Your task to perform on an android device: open app "Google Play Music" (install if not already installed) Image 0: 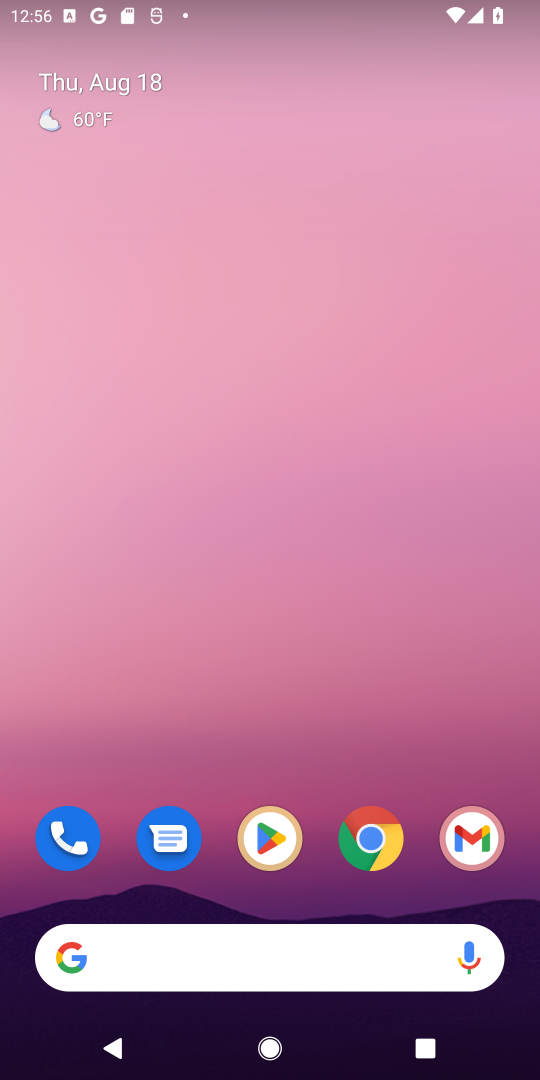
Step 0: click (283, 857)
Your task to perform on an android device: open app "Google Play Music" (install if not already installed) Image 1: 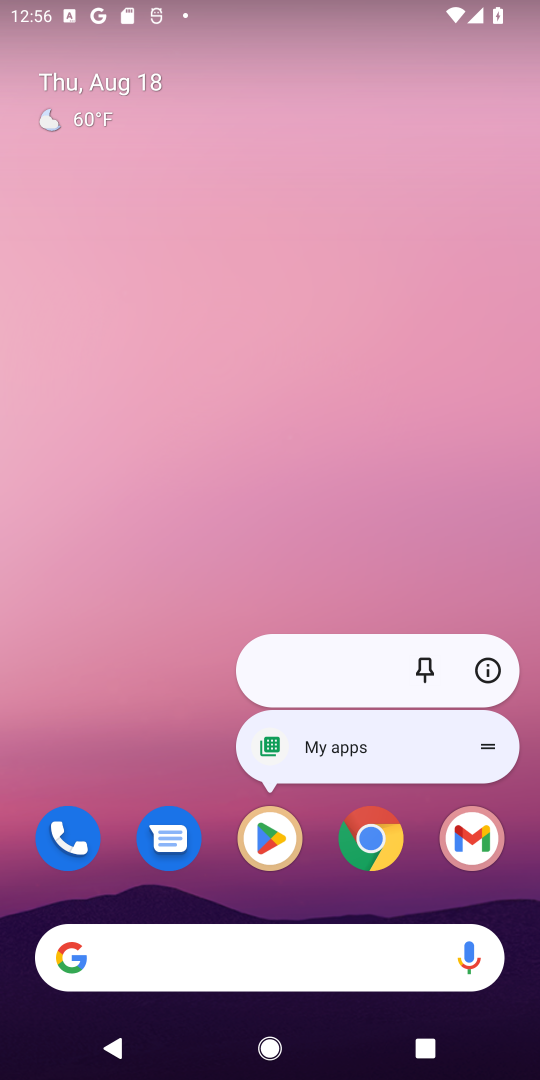
Step 1: click (271, 848)
Your task to perform on an android device: open app "Google Play Music" (install if not already installed) Image 2: 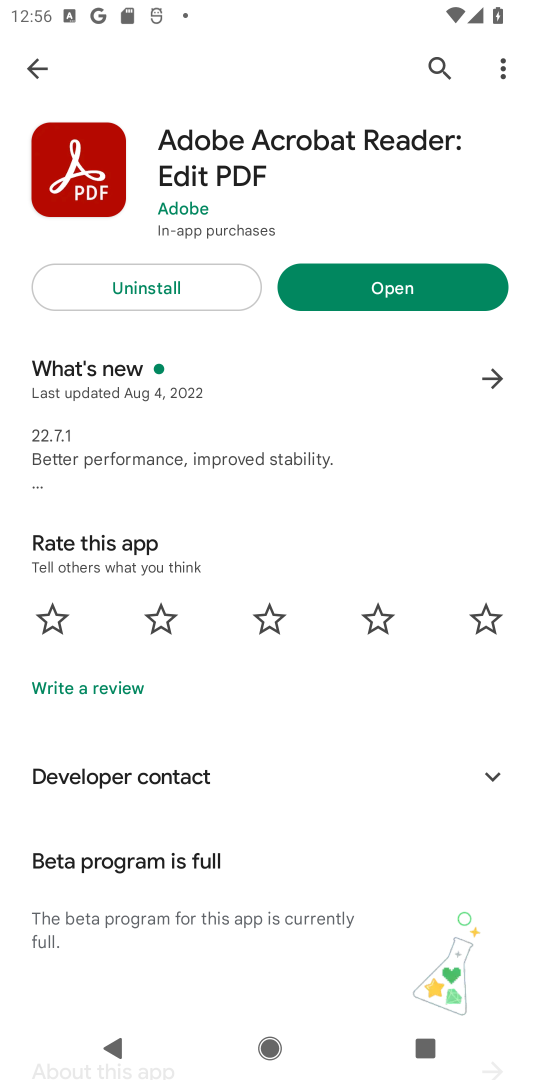
Step 2: click (442, 55)
Your task to perform on an android device: open app "Google Play Music" (install if not already installed) Image 3: 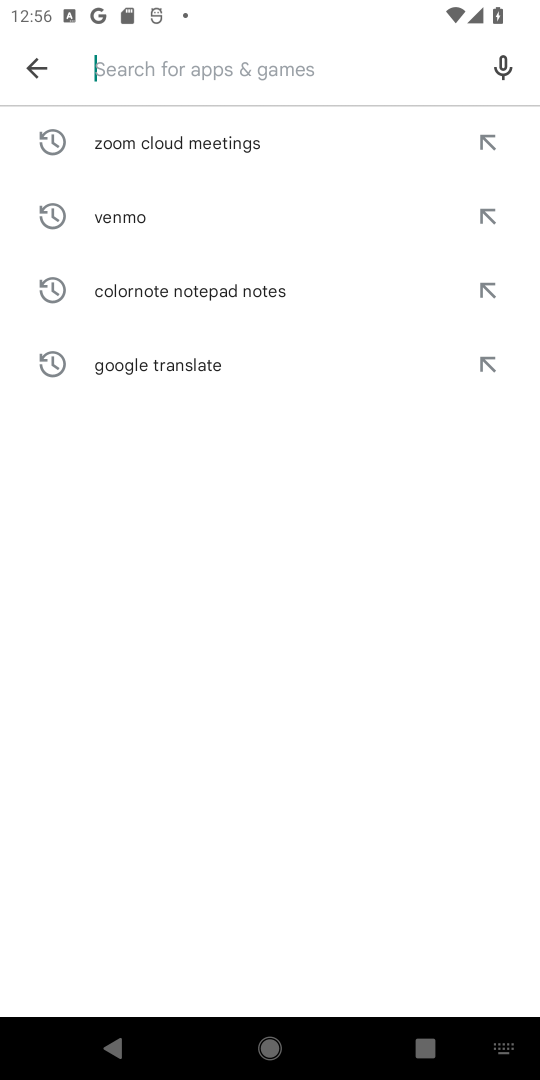
Step 3: type "Google Play Music"
Your task to perform on an android device: open app "Google Play Music" (install if not already installed) Image 4: 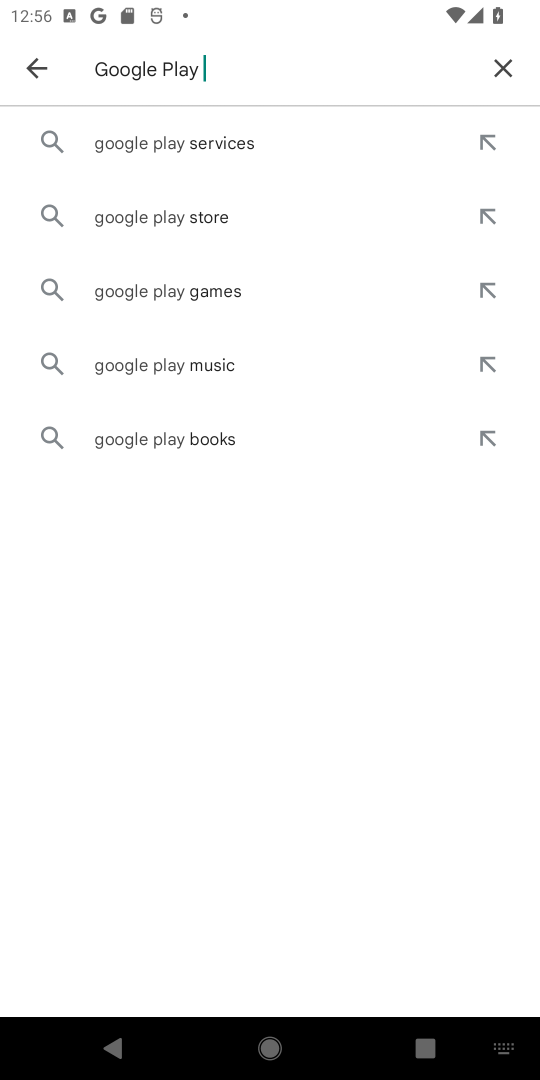
Step 4: type ""
Your task to perform on an android device: open app "Google Play Music" (install if not already installed) Image 5: 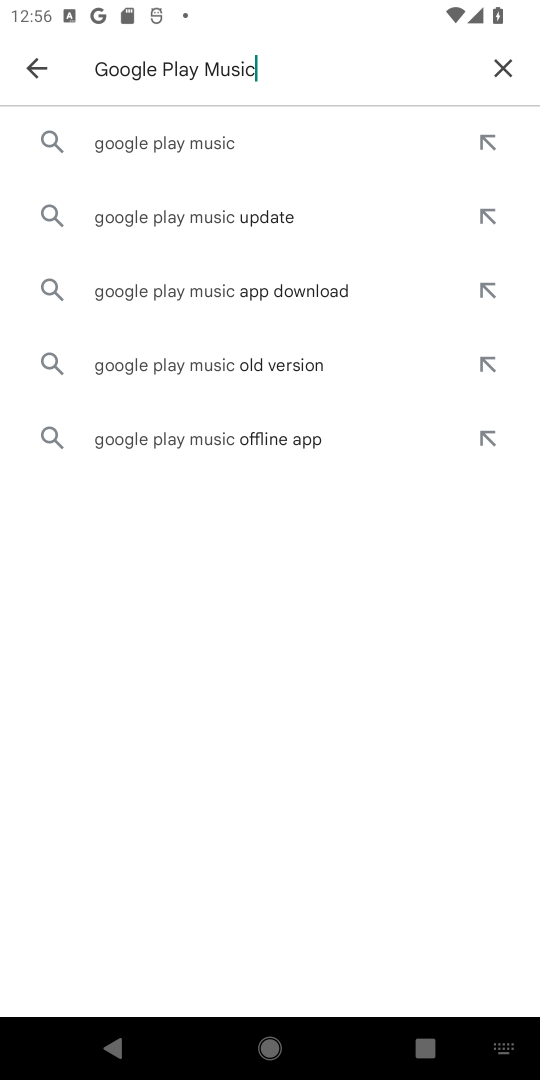
Step 5: click (208, 148)
Your task to perform on an android device: open app "Google Play Music" (install if not already installed) Image 6: 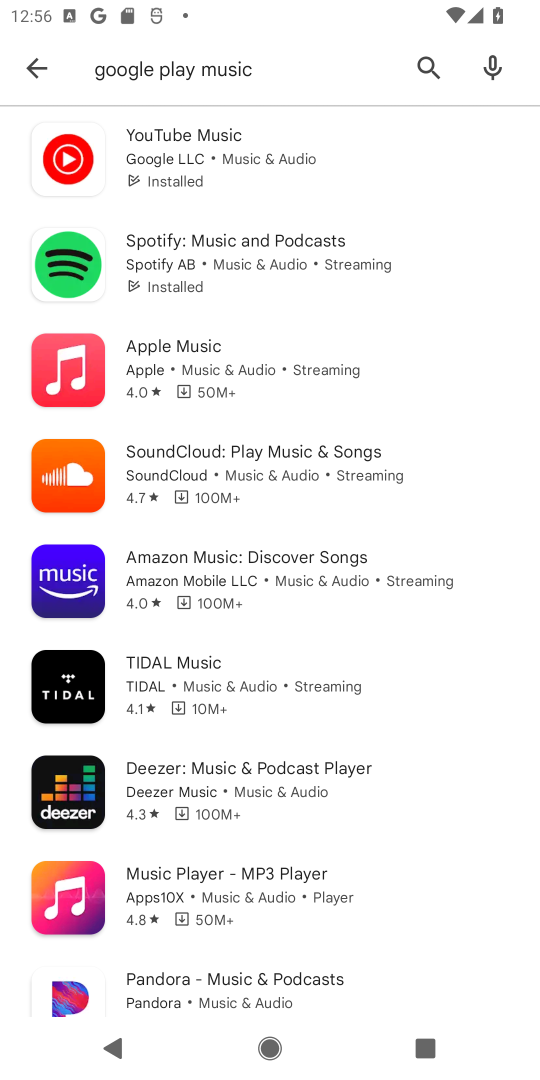
Step 6: task complete